Your task to perform on an android device: open chrome and create a bookmark for the current page Image 0: 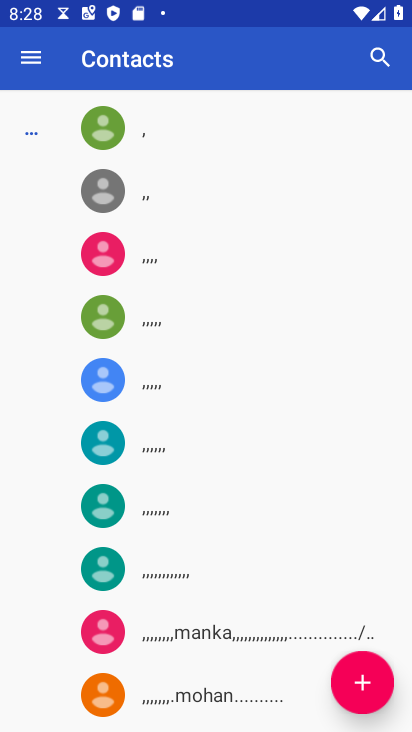
Step 0: press home button
Your task to perform on an android device: open chrome and create a bookmark for the current page Image 1: 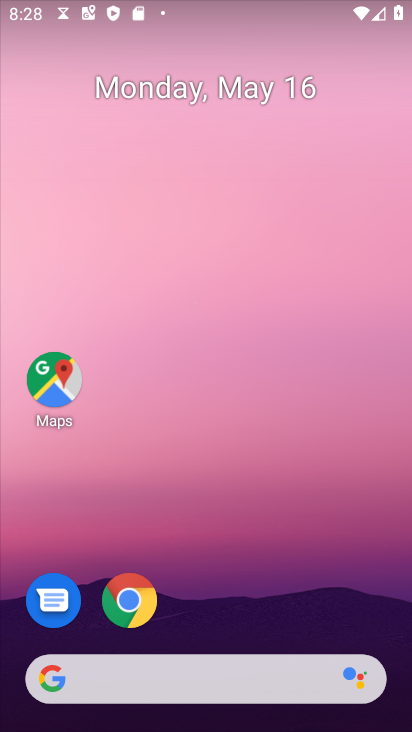
Step 1: click (148, 584)
Your task to perform on an android device: open chrome and create a bookmark for the current page Image 2: 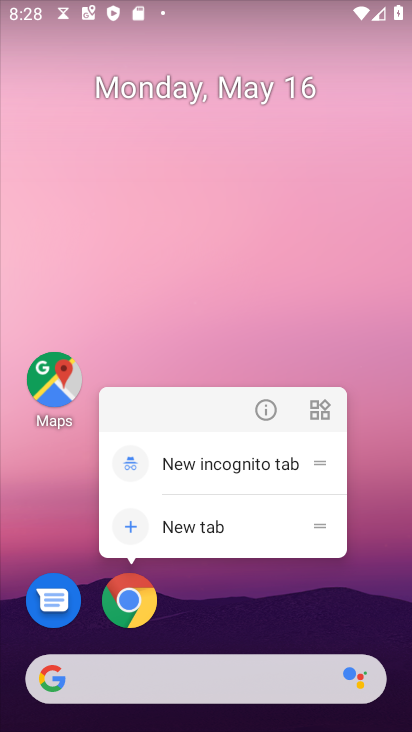
Step 2: click (149, 583)
Your task to perform on an android device: open chrome and create a bookmark for the current page Image 3: 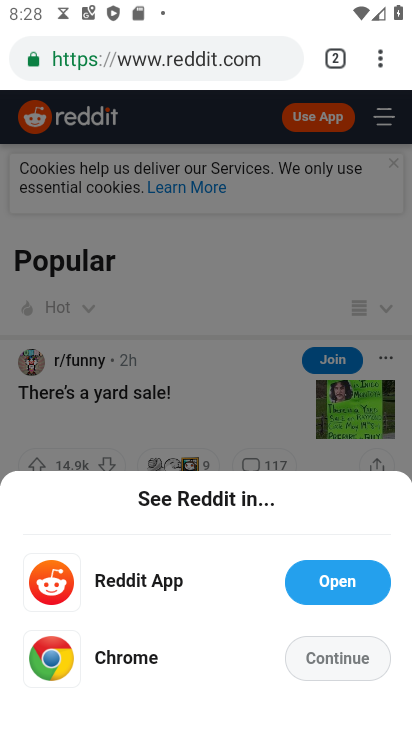
Step 3: task complete